Your task to perform on an android device: What's the news this evening? Image 0: 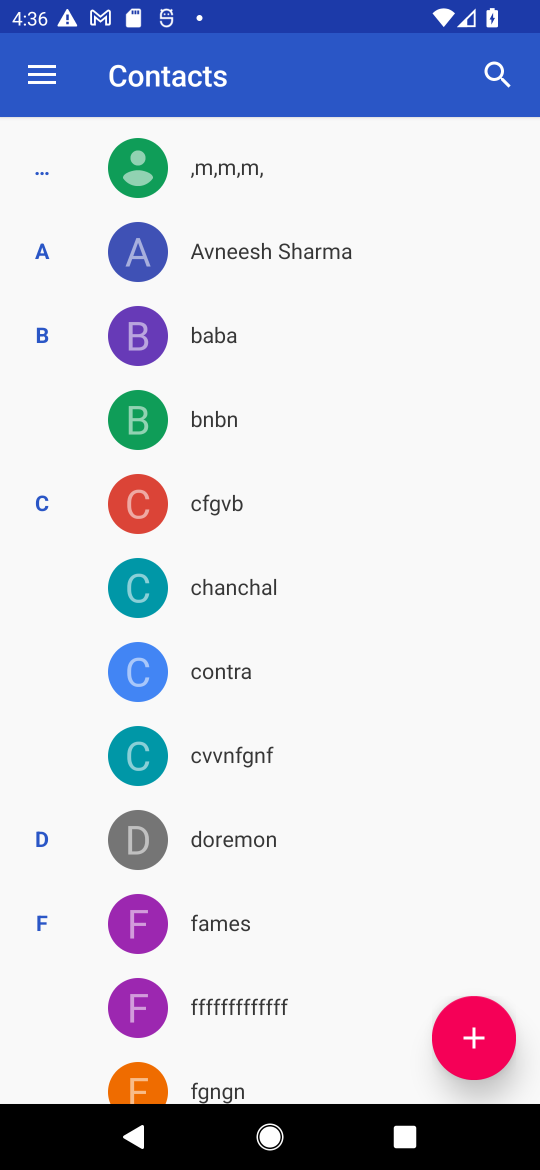
Step 0: press home button
Your task to perform on an android device: What's the news this evening? Image 1: 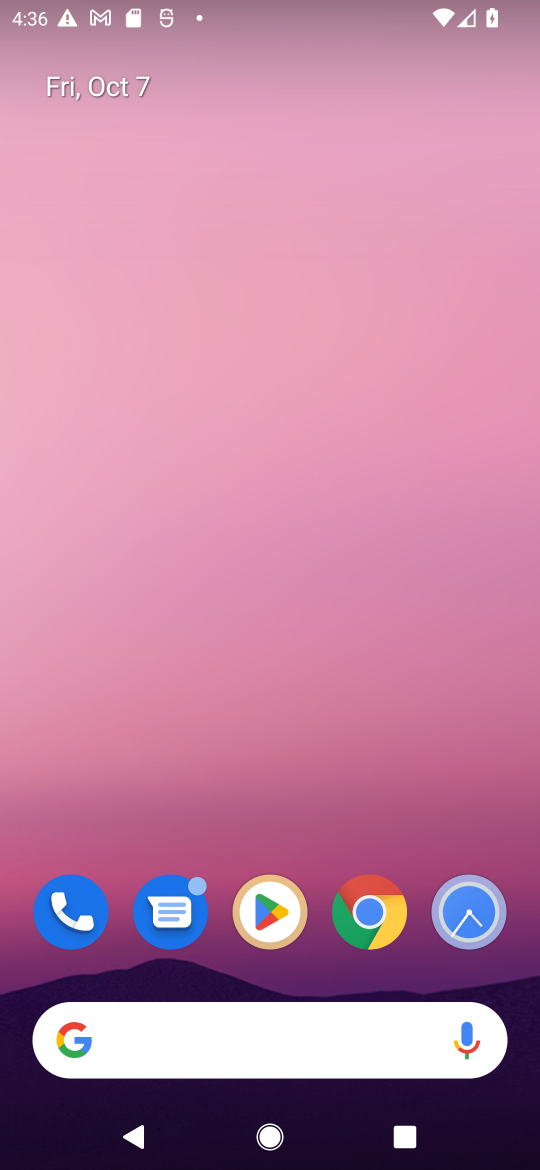
Step 1: drag from (262, 993) to (272, 322)
Your task to perform on an android device: What's the news this evening? Image 2: 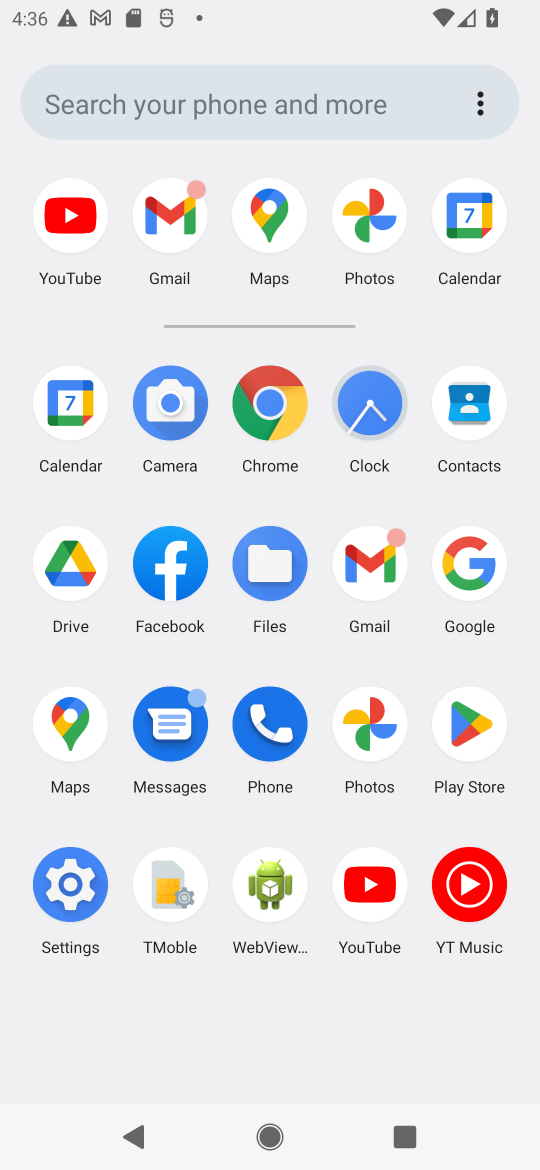
Step 2: click (465, 560)
Your task to perform on an android device: What's the news this evening? Image 3: 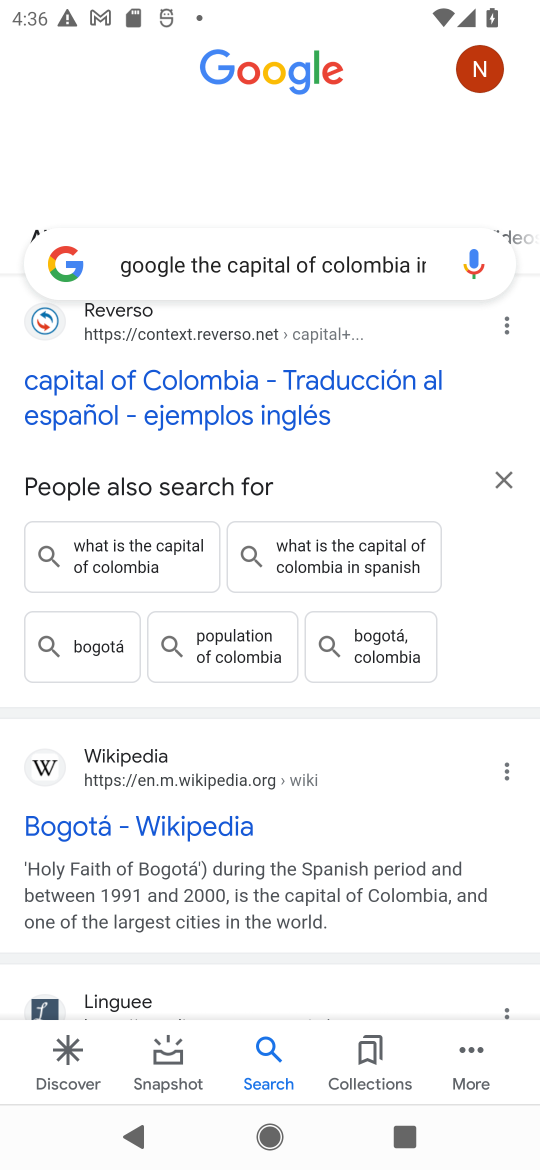
Step 3: click (303, 264)
Your task to perform on an android device: What's the news this evening? Image 4: 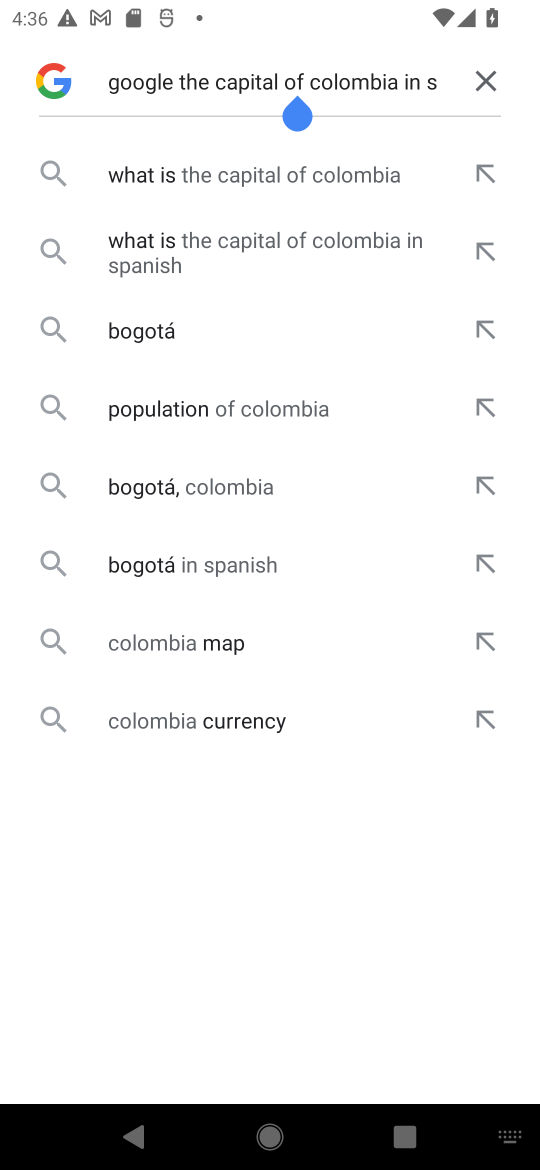
Step 4: click (467, 73)
Your task to perform on an android device: What's the news this evening? Image 5: 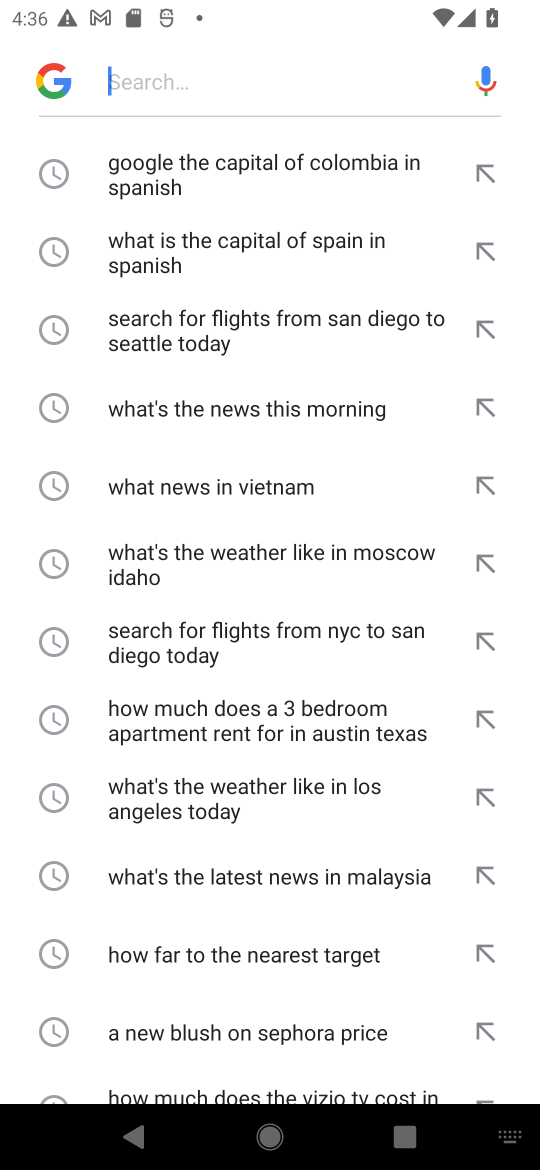
Step 5: click (260, 84)
Your task to perform on an android device: What's the news this evening? Image 6: 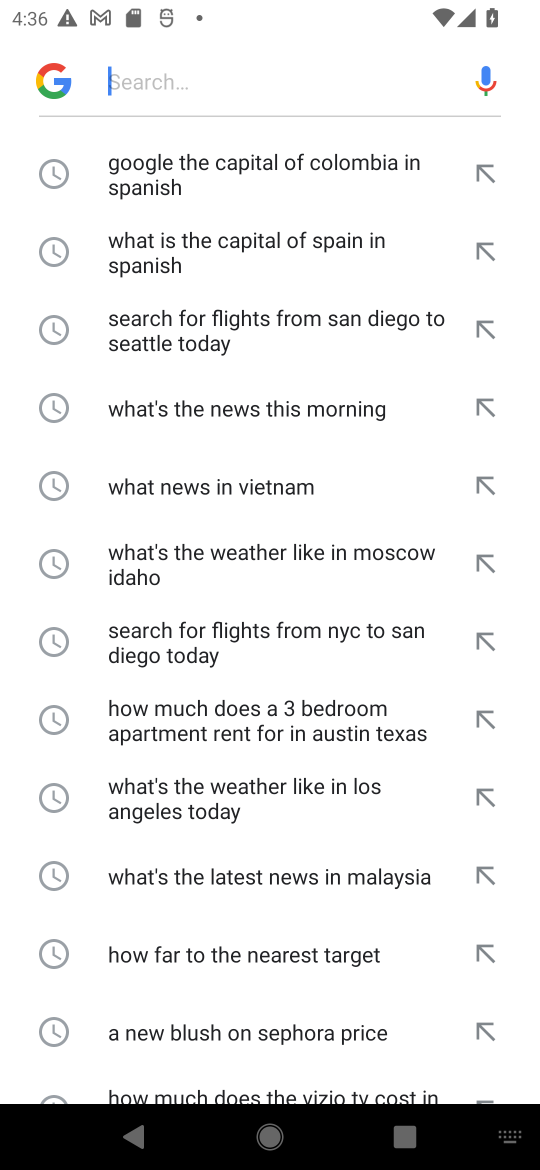
Step 6: type "What's the news this evening? "
Your task to perform on an android device: What's the news this evening? Image 7: 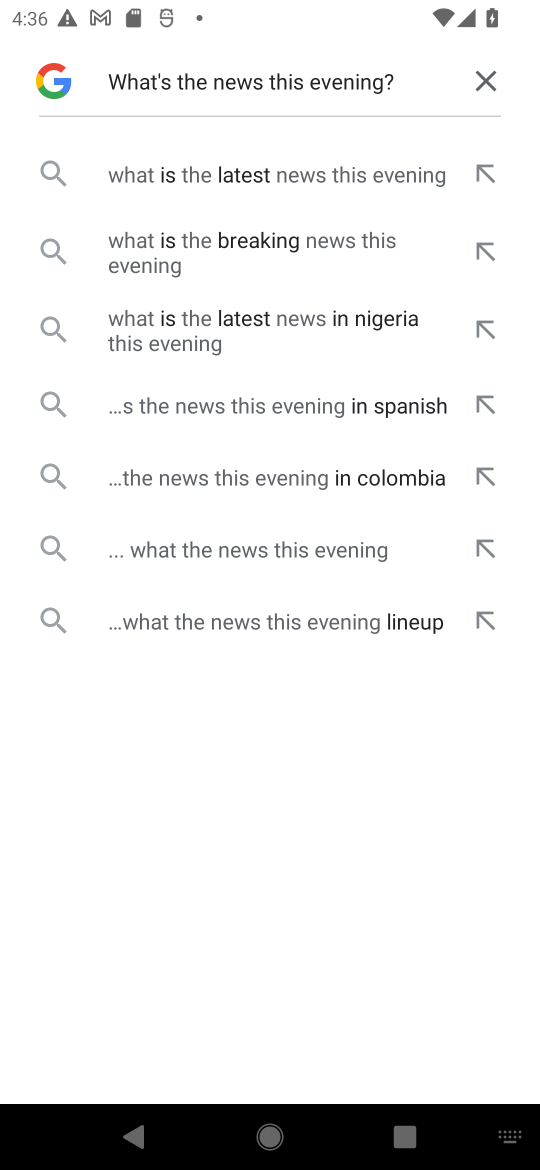
Step 7: click (319, 176)
Your task to perform on an android device: What's the news this evening? Image 8: 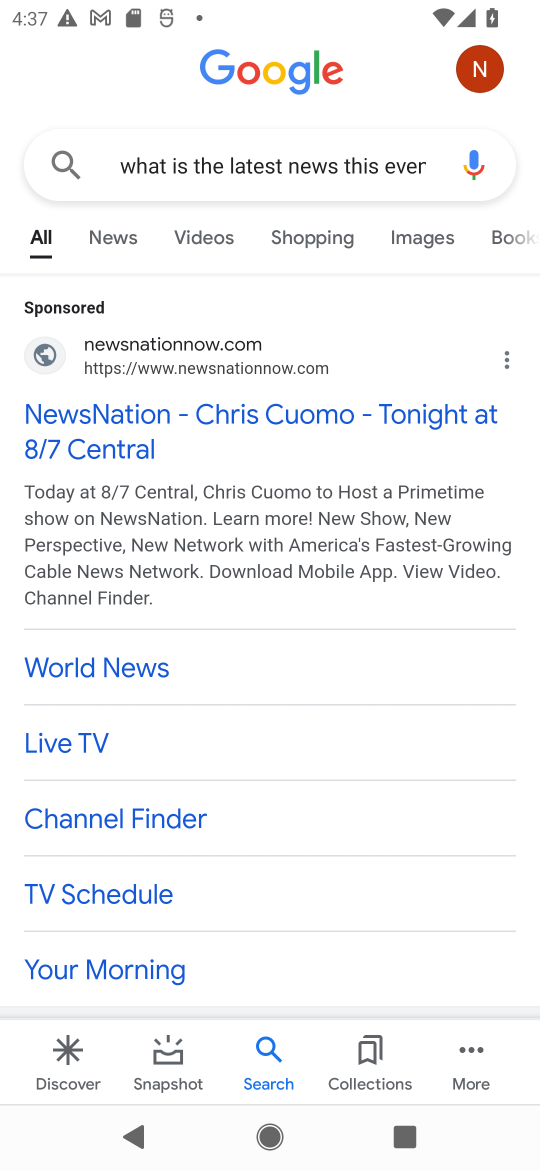
Step 8: click (122, 441)
Your task to perform on an android device: What's the news this evening? Image 9: 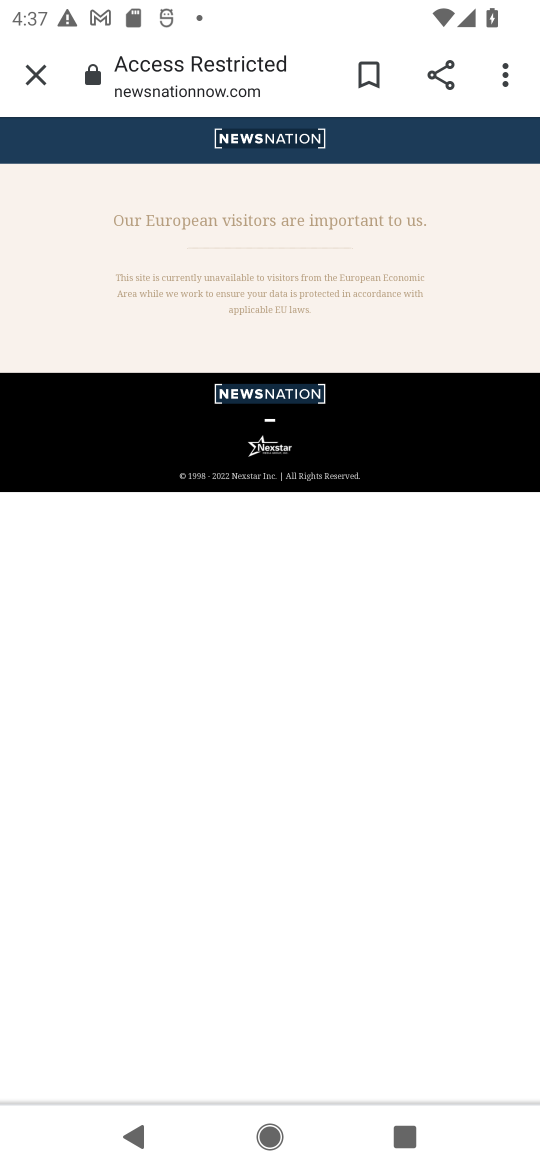
Step 9: task complete